Your task to perform on an android device: Open CNN.com Image 0: 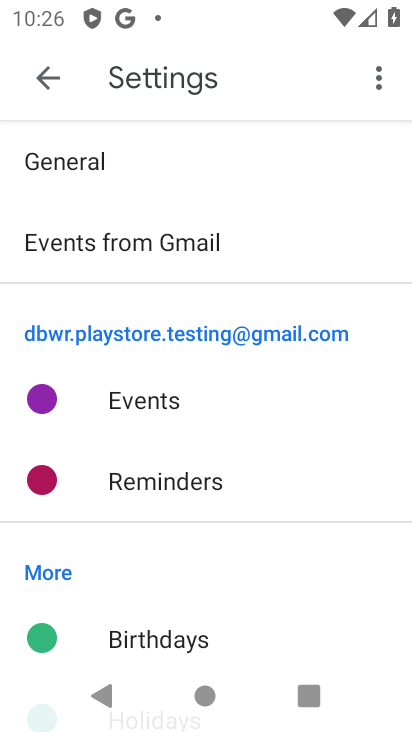
Step 0: press home button
Your task to perform on an android device: Open CNN.com Image 1: 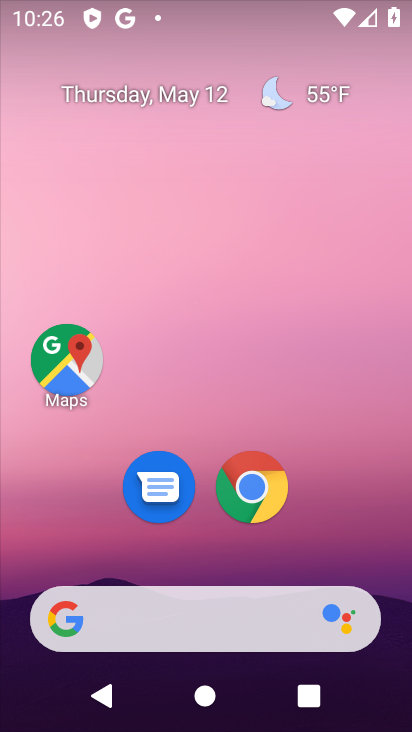
Step 1: click (255, 494)
Your task to perform on an android device: Open CNN.com Image 2: 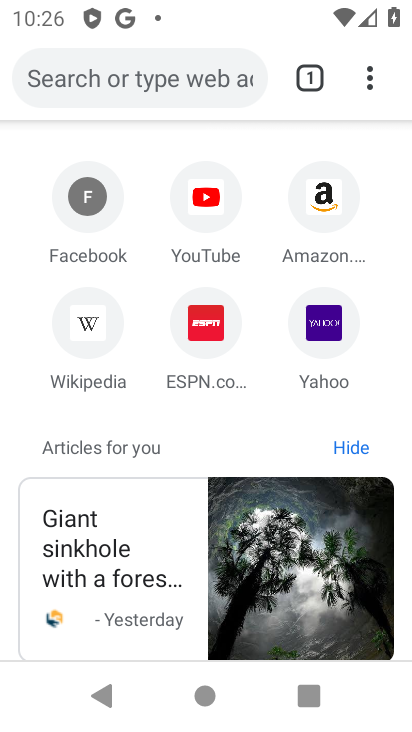
Step 2: click (74, 88)
Your task to perform on an android device: Open CNN.com Image 3: 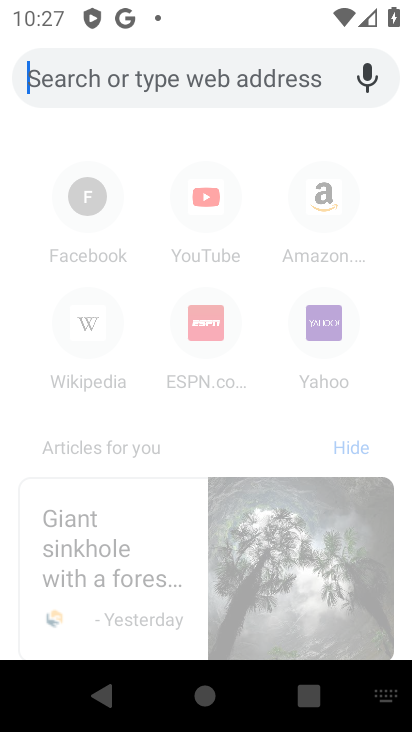
Step 3: type "cnn.com"
Your task to perform on an android device: Open CNN.com Image 4: 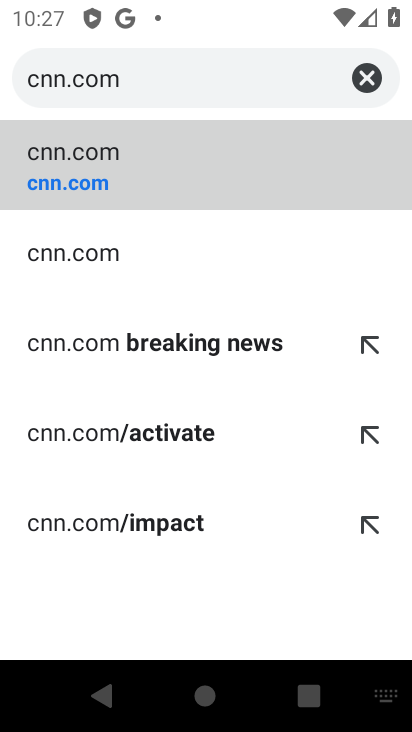
Step 4: click (75, 186)
Your task to perform on an android device: Open CNN.com Image 5: 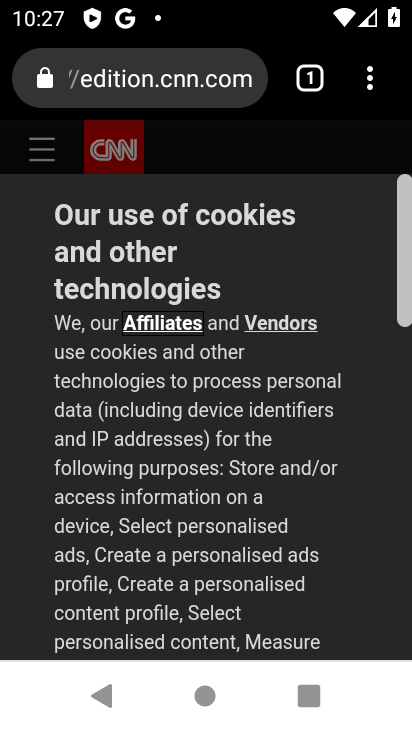
Step 5: task complete